Your task to perform on an android device: Open calendar and show me the first week of next month Image 0: 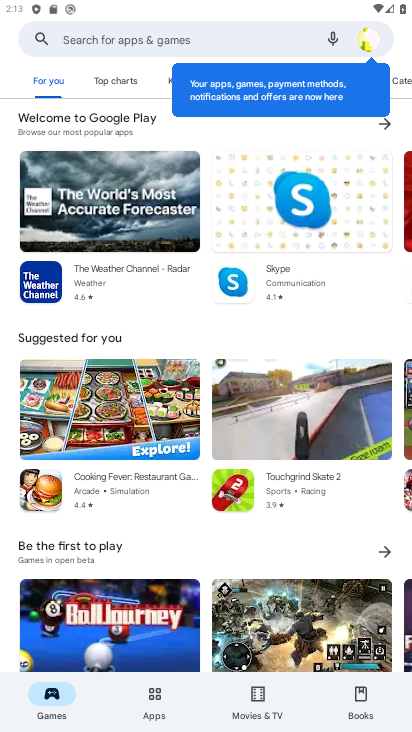
Step 0: press home button
Your task to perform on an android device: Open calendar and show me the first week of next month Image 1: 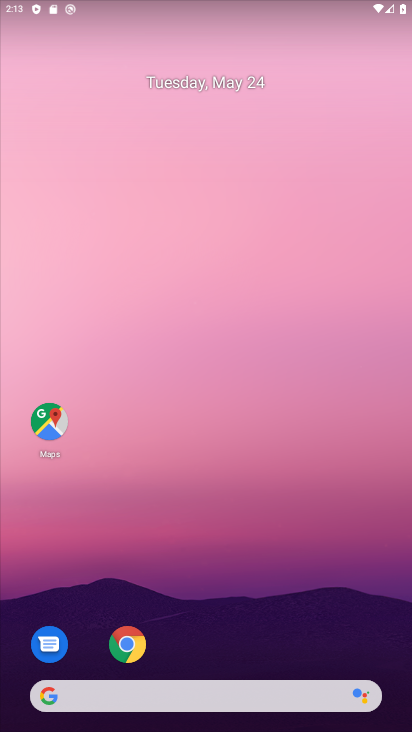
Step 1: drag from (200, 627) to (187, 89)
Your task to perform on an android device: Open calendar and show me the first week of next month Image 2: 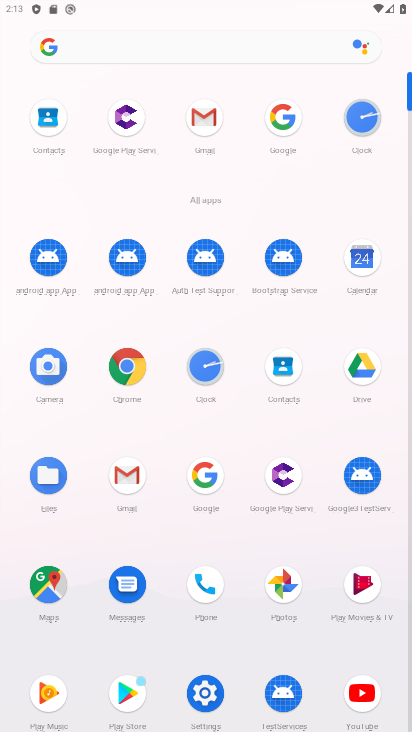
Step 2: click (361, 255)
Your task to perform on an android device: Open calendar and show me the first week of next month Image 3: 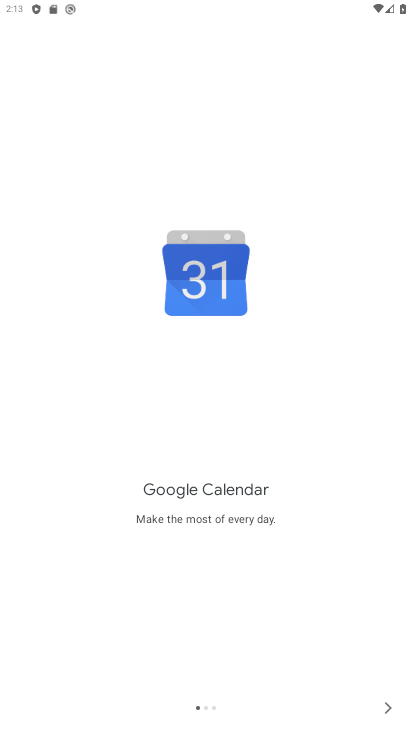
Step 3: click (393, 711)
Your task to perform on an android device: Open calendar and show me the first week of next month Image 4: 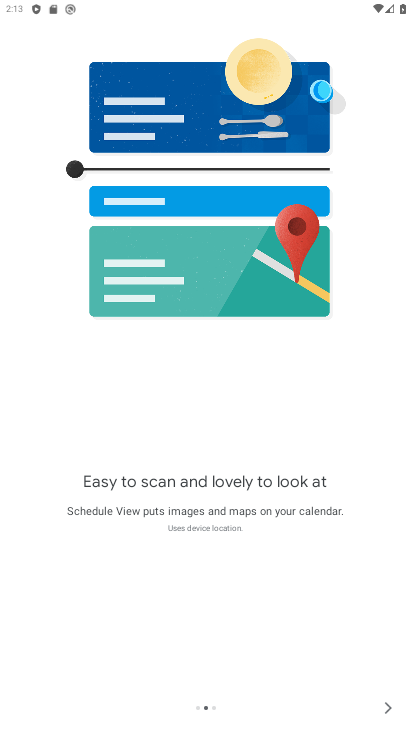
Step 4: click (393, 711)
Your task to perform on an android device: Open calendar and show me the first week of next month Image 5: 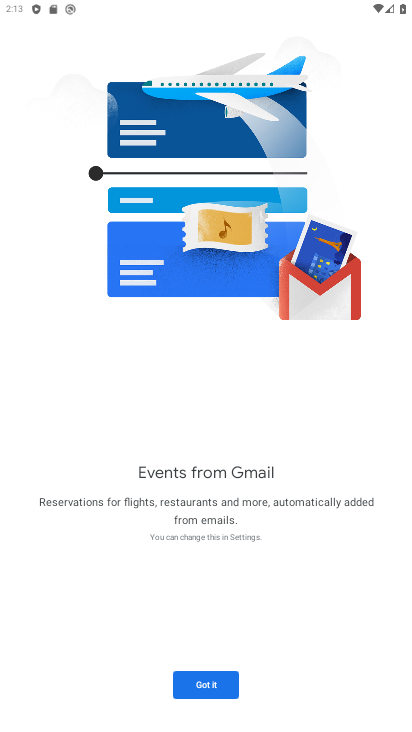
Step 5: click (214, 691)
Your task to perform on an android device: Open calendar and show me the first week of next month Image 6: 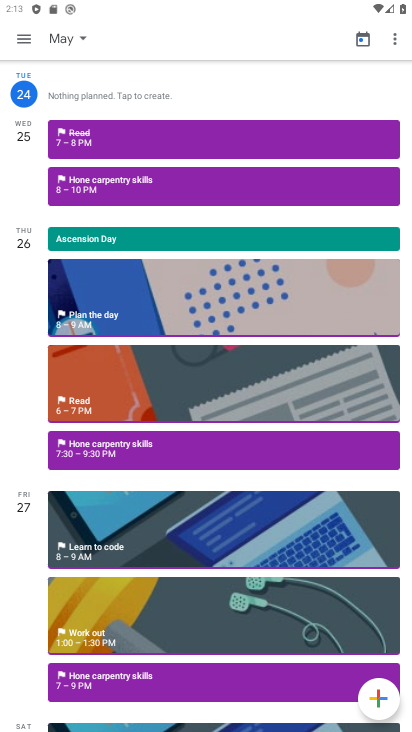
Step 6: click (78, 44)
Your task to perform on an android device: Open calendar and show me the first week of next month Image 7: 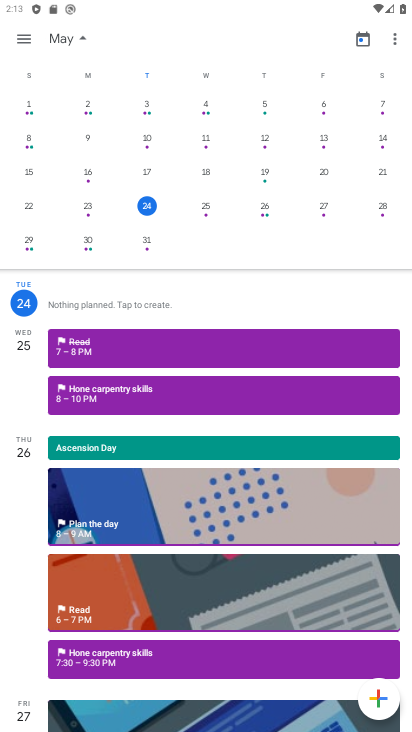
Step 7: drag from (318, 238) to (64, 236)
Your task to perform on an android device: Open calendar and show me the first week of next month Image 8: 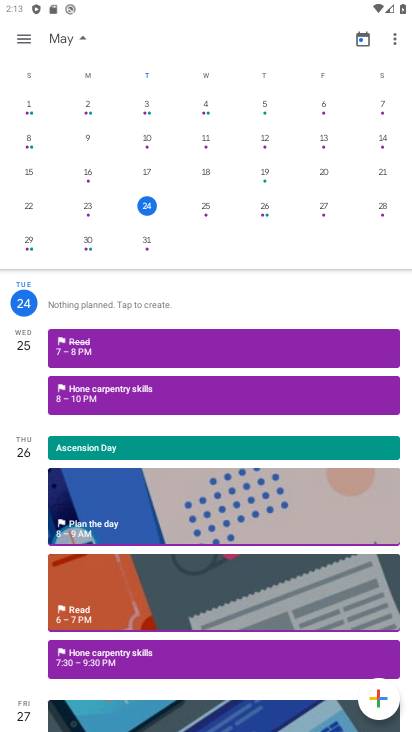
Step 8: drag from (351, 236) to (0, 219)
Your task to perform on an android device: Open calendar and show me the first week of next month Image 9: 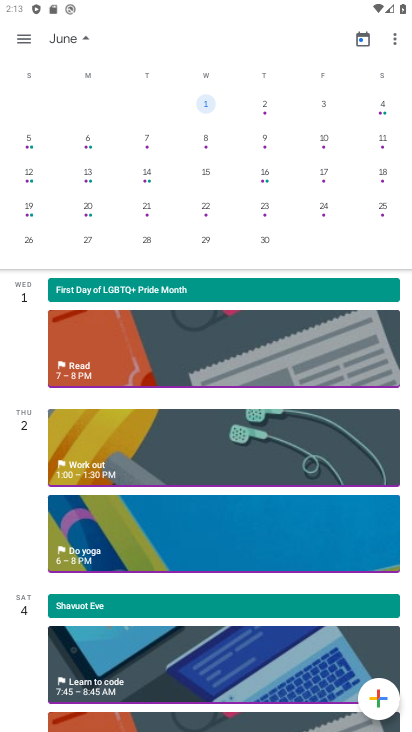
Step 9: click (323, 108)
Your task to perform on an android device: Open calendar and show me the first week of next month Image 10: 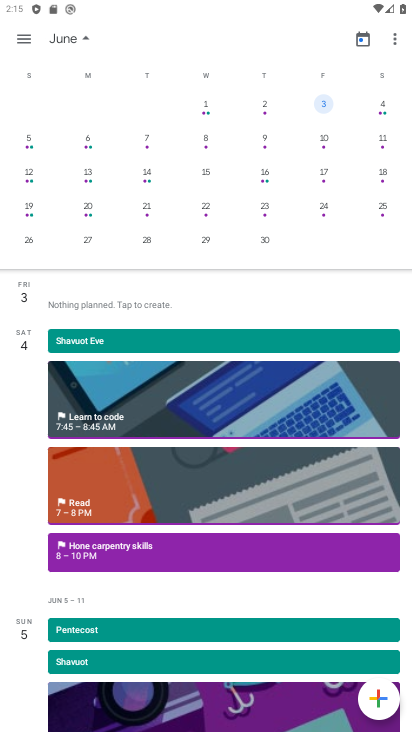
Step 10: task complete